Your task to perform on an android device: toggle sleep mode Image 0: 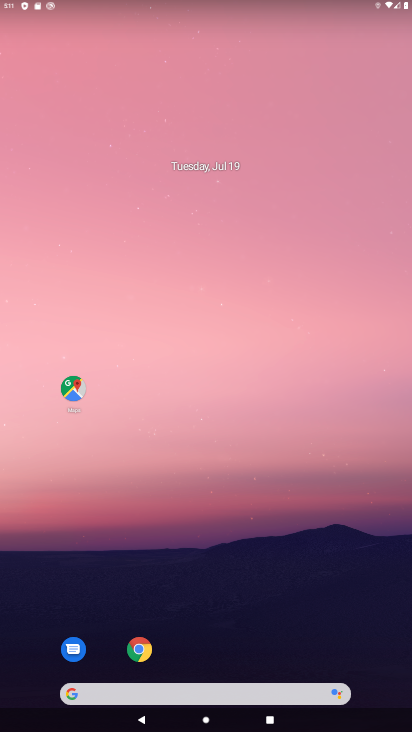
Step 0: drag from (288, 618) to (262, 186)
Your task to perform on an android device: toggle sleep mode Image 1: 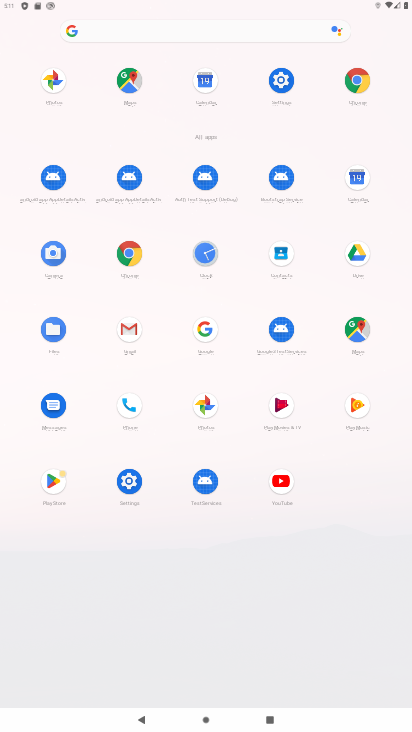
Step 1: click (272, 80)
Your task to perform on an android device: toggle sleep mode Image 2: 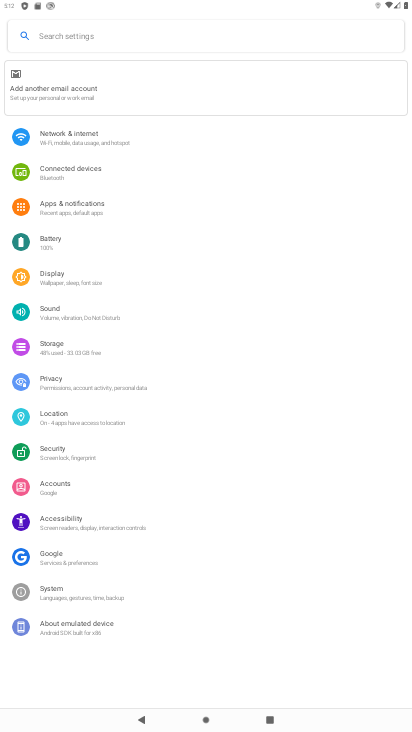
Step 2: click (73, 282)
Your task to perform on an android device: toggle sleep mode Image 3: 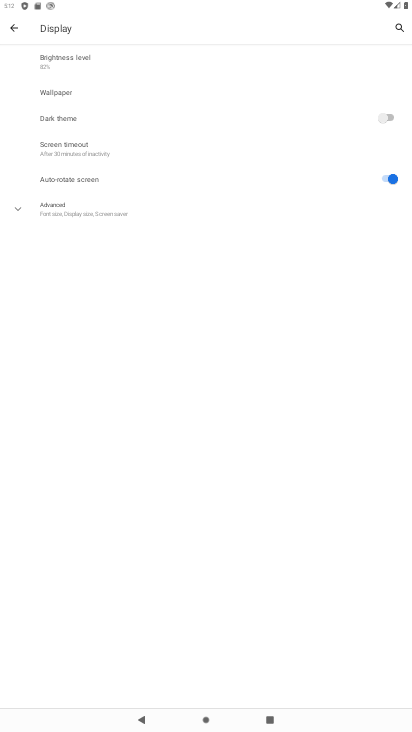
Step 3: click (89, 151)
Your task to perform on an android device: toggle sleep mode Image 4: 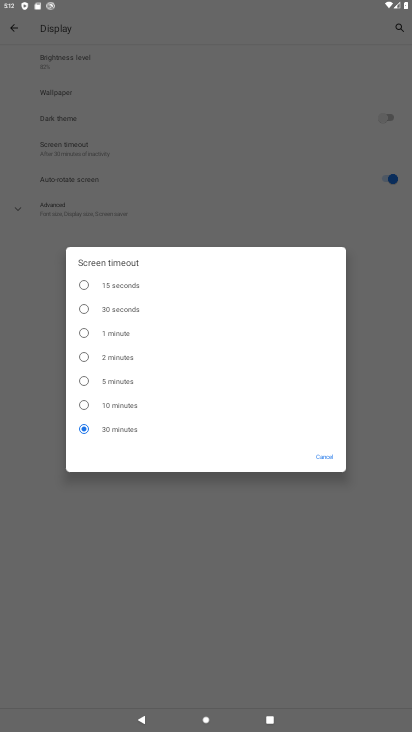
Step 4: click (110, 406)
Your task to perform on an android device: toggle sleep mode Image 5: 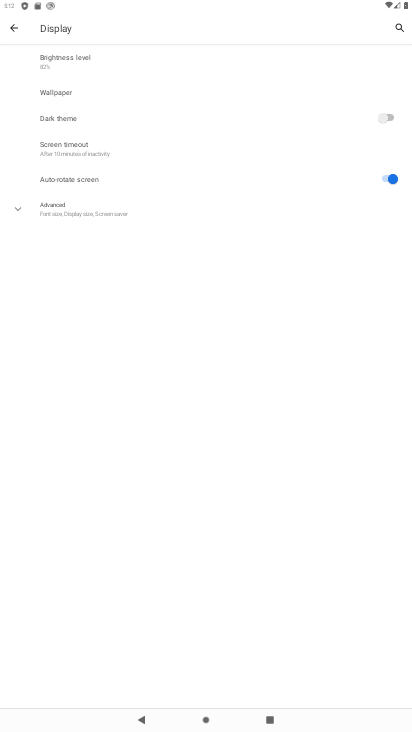
Step 5: task complete